Your task to perform on an android device: Open Maps and search for coffee Image 0: 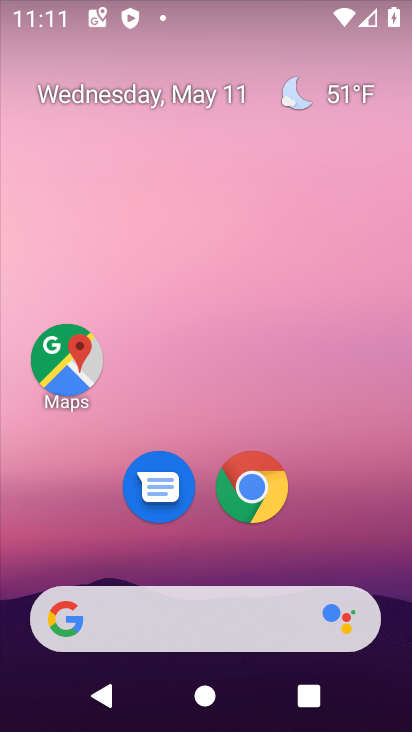
Step 0: click (47, 360)
Your task to perform on an android device: Open Maps and search for coffee Image 1: 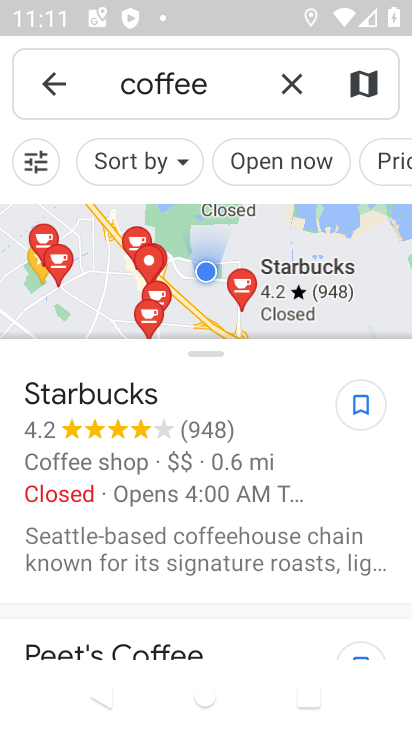
Step 1: task complete